Your task to perform on an android device: visit the assistant section in the google photos Image 0: 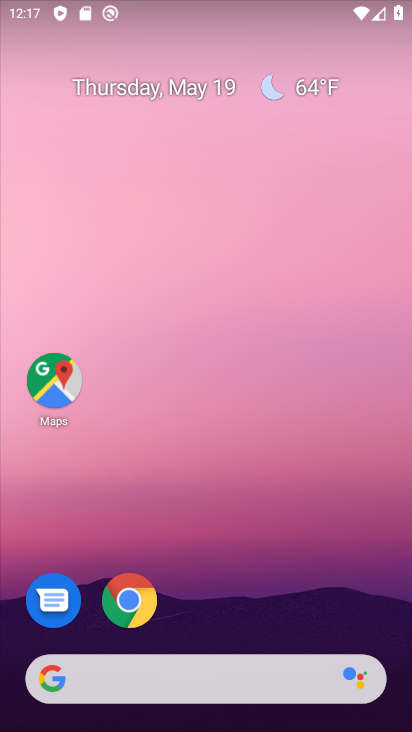
Step 0: drag from (175, 638) to (103, 62)
Your task to perform on an android device: visit the assistant section in the google photos Image 1: 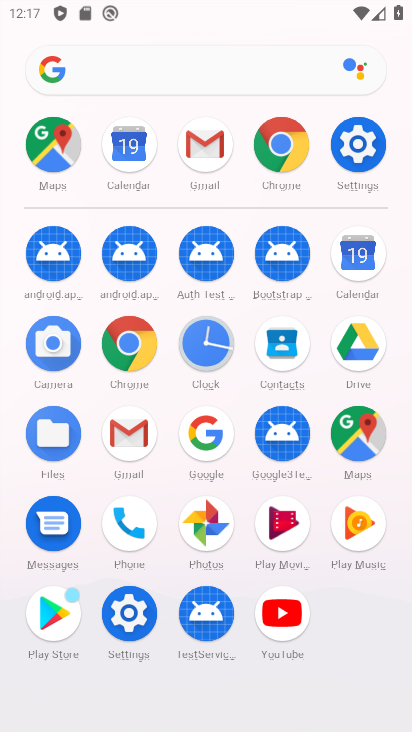
Step 1: click (197, 535)
Your task to perform on an android device: visit the assistant section in the google photos Image 2: 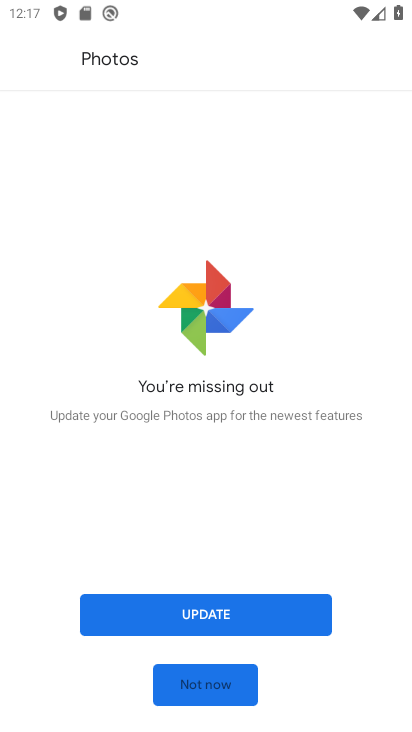
Step 2: press home button
Your task to perform on an android device: visit the assistant section in the google photos Image 3: 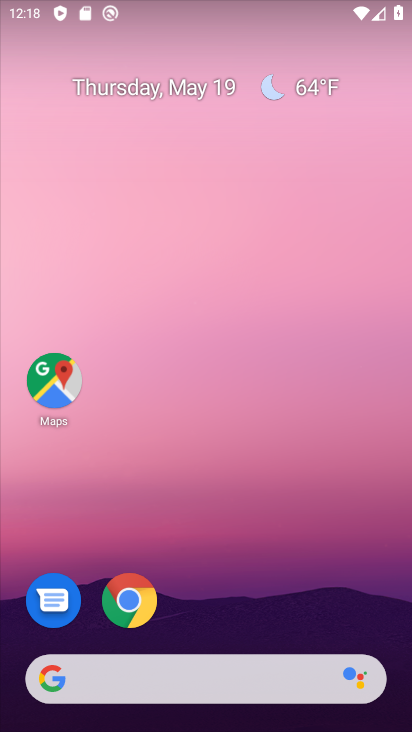
Step 3: drag from (220, 645) to (247, 37)
Your task to perform on an android device: visit the assistant section in the google photos Image 4: 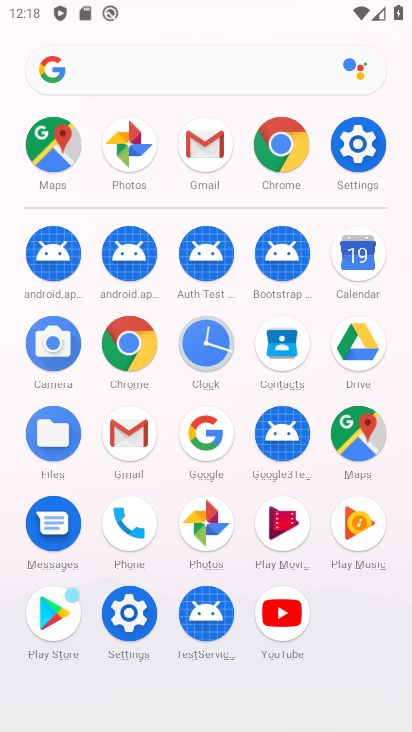
Step 4: click (221, 518)
Your task to perform on an android device: visit the assistant section in the google photos Image 5: 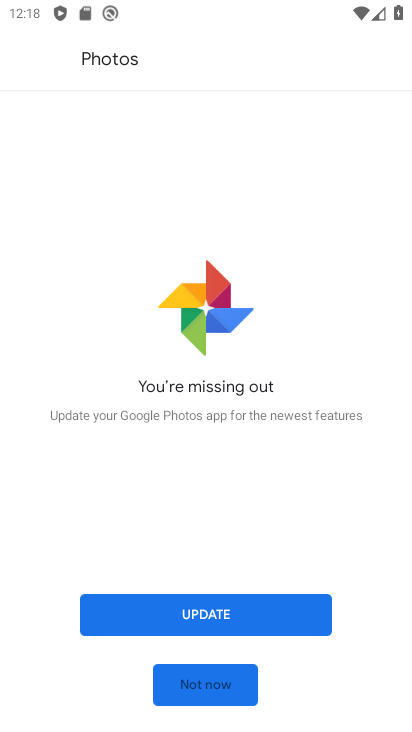
Step 5: click (199, 684)
Your task to perform on an android device: visit the assistant section in the google photos Image 6: 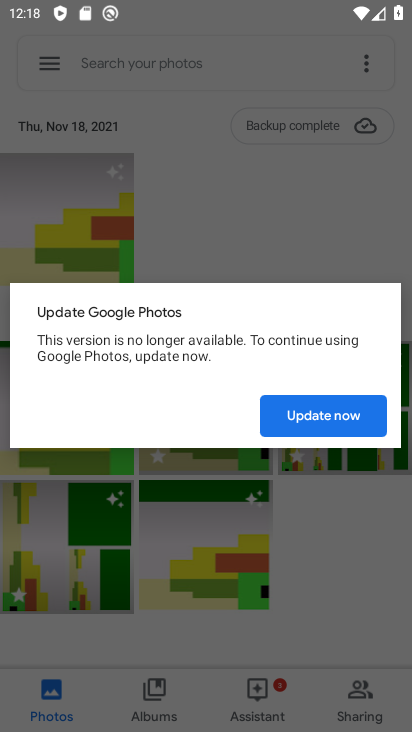
Step 6: click (345, 417)
Your task to perform on an android device: visit the assistant section in the google photos Image 7: 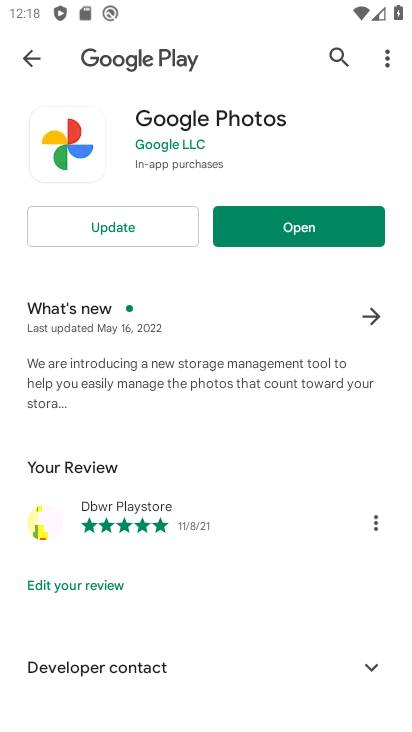
Step 7: click (279, 233)
Your task to perform on an android device: visit the assistant section in the google photos Image 8: 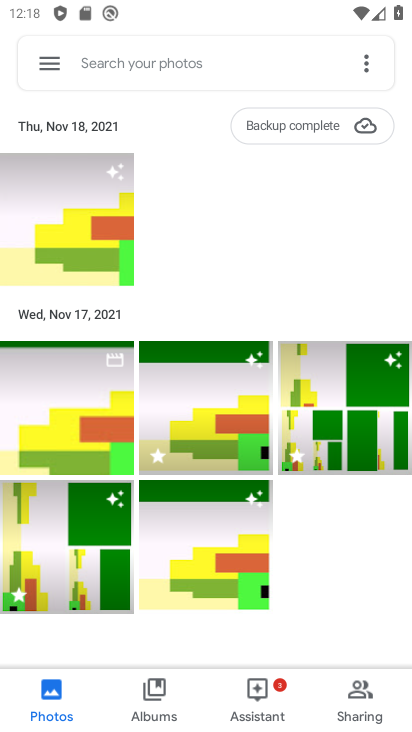
Step 8: click (237, 709)
Your task to perform on an android device: visit the assistant section in the google photos Image 9: 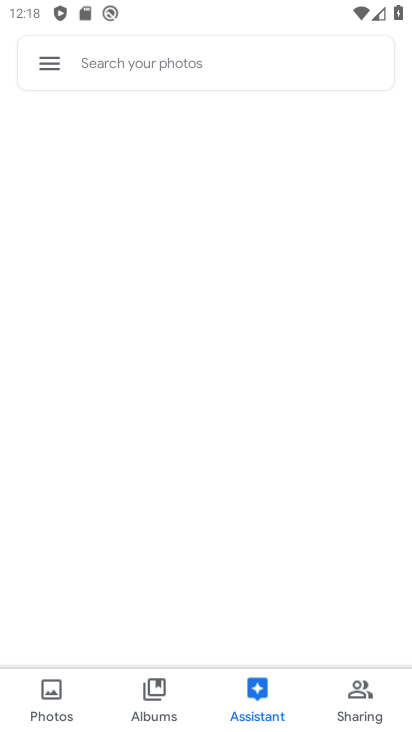
Step 9: task complete